Your task to perform on an android device: check google app version Image 0: 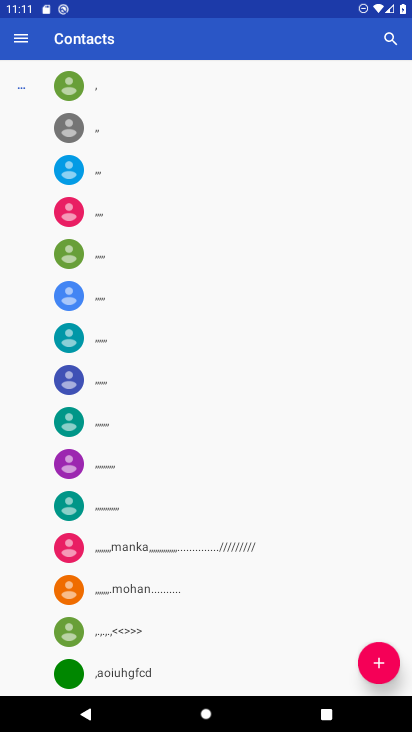
Step 0: press home button
Your task to perform on an android device: check google app version Image 1: 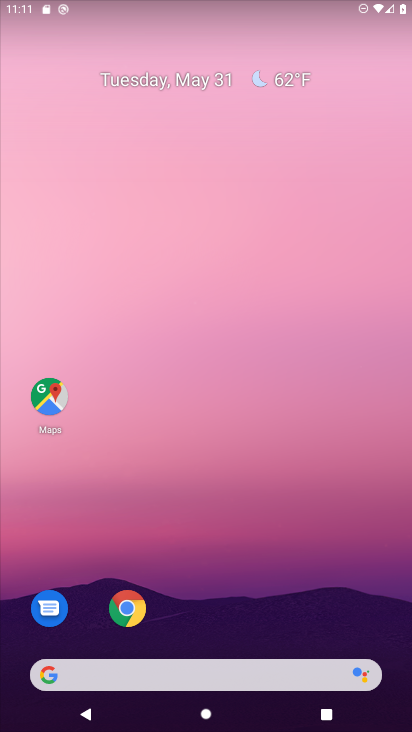
Step 1: drag from (283, 495) to (286, 218)
Your task to perform on an android device: check google app version Image 2: 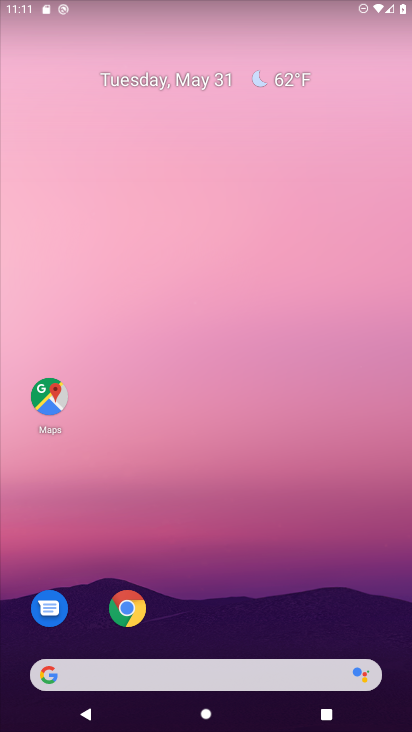
Step 2: drag from (295, 604) to (250, 148)
Your task to perform on an android device: check google app version Image 3: 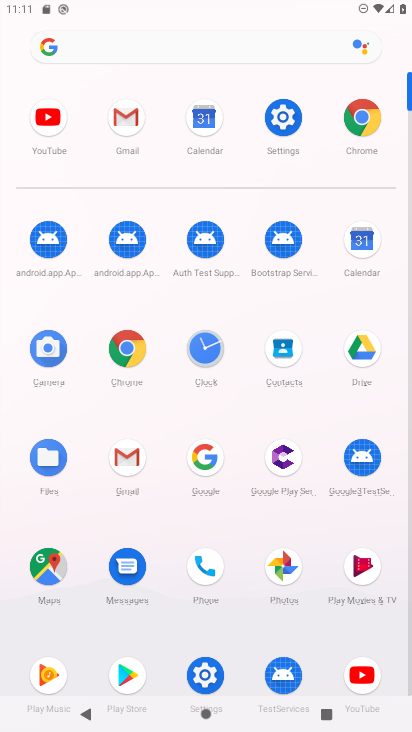
Step 3: click (203, 467)
Your task to perform on an android device: check google app version Image 4: 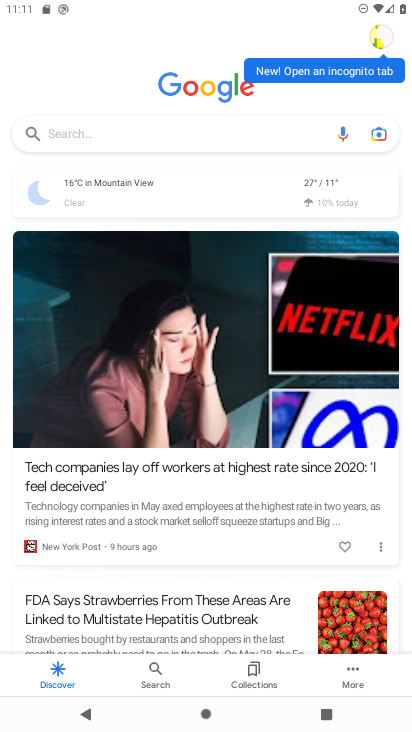
Step 4: click (328, 680)
Your task to perform on an android device: check google app version Image 5: 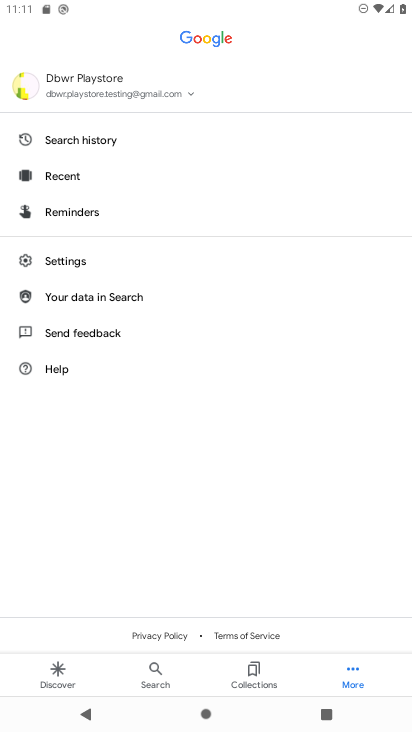
Step 5: click (65, 264)
Your task to perform on an android device: check google app version Image 6: 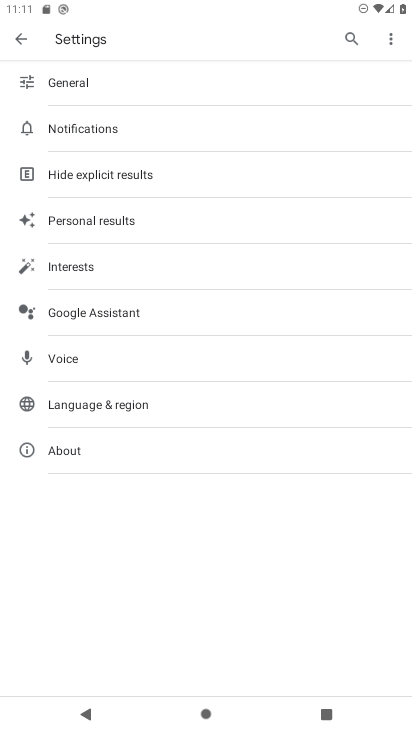
Step 6: click (74, 458)
Your task to perform on an android device: check google app version Image 7: 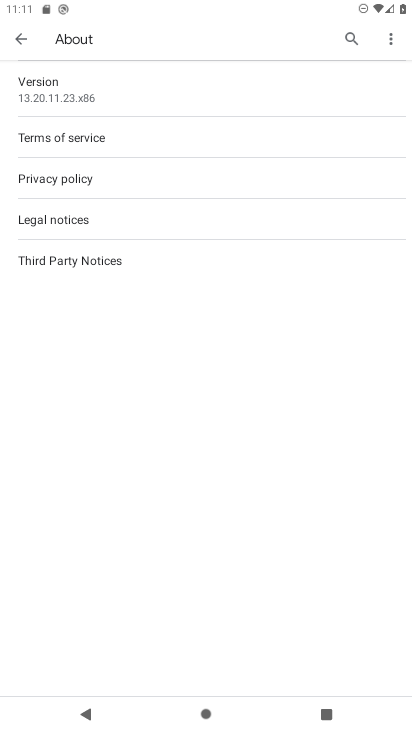
Step 7: task complete